Your task to perform on an android device: find which apps use the phone's location Image 0: 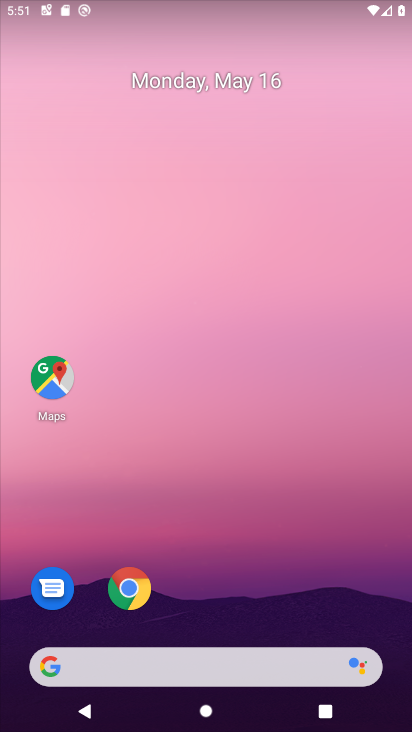
Step 0: drag from (250, 511) to (189, 102)
Your task to perform on an android device: find which apps use the phone's location Image 1: 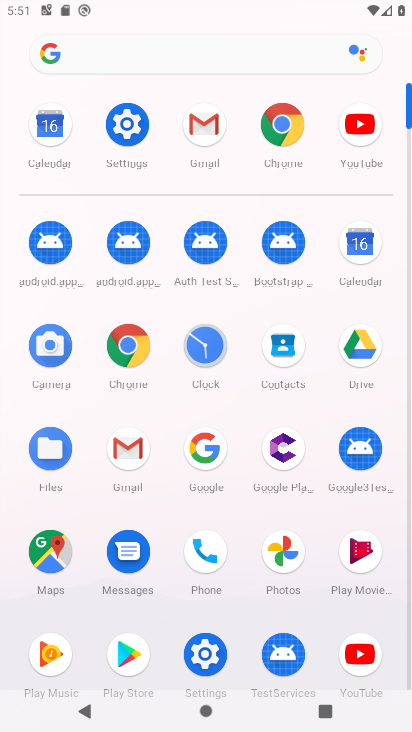
Step 1: click (209, 652)
Your task to perform on an android device: find which apps use the phone's location Image 2: 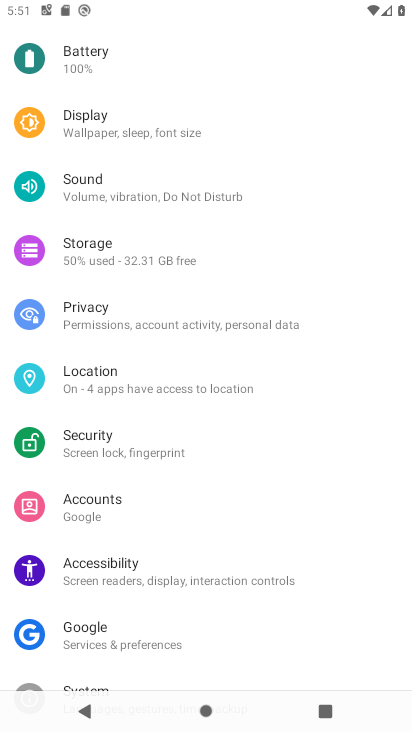
Step 2: click (154, 378)
Your task to perform on an android device: find which apps use the phone's location Image 3: 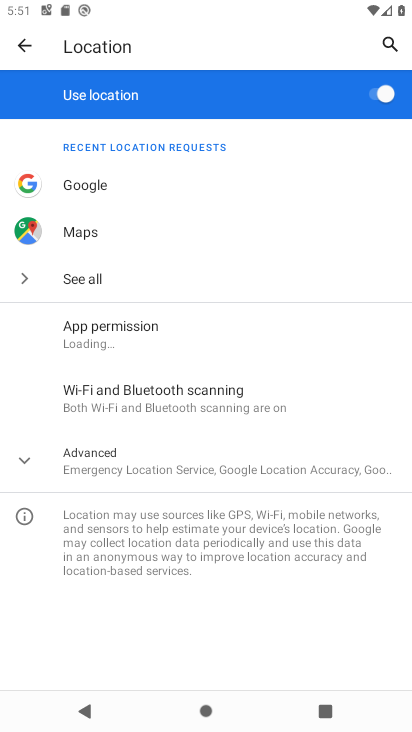
Step 3: click (134, 333)
Your task to perform on an android device: find which apps use the phone's location Image 4: 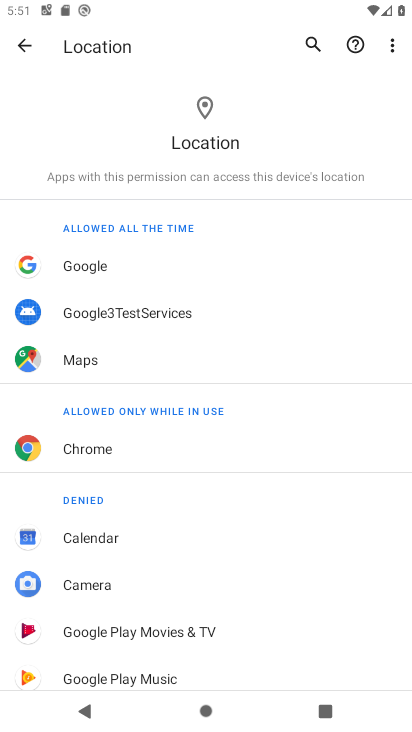
Step 4: task complete